Your task to perform on an android device: open app "Flipkart Online Shopping App" (install if not already installed) Image 0: 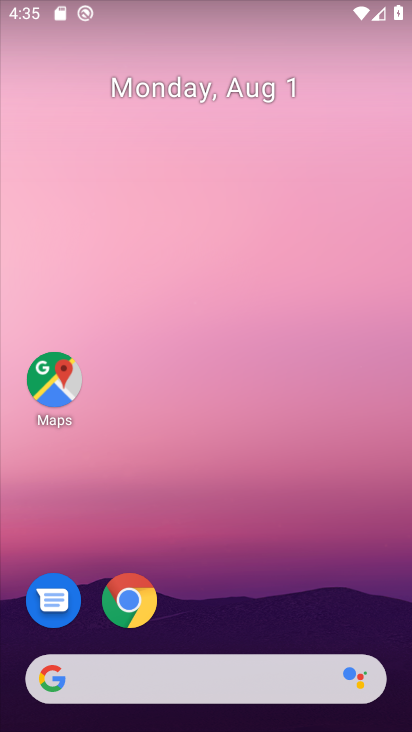
Step 0: drag from (265, 608) to (240, 69)
Your task to perform on an android device: open app "Flipkart Online Shopping App" (install if not already installed) Image 1: 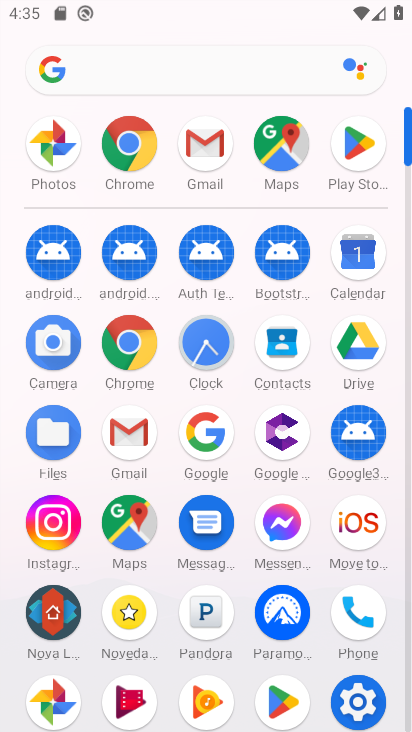
Step 1: click (372, 143)
Your task to perform on an android device: open app "Flipkart Online Shopping App" (install if not already installed) Image 2: 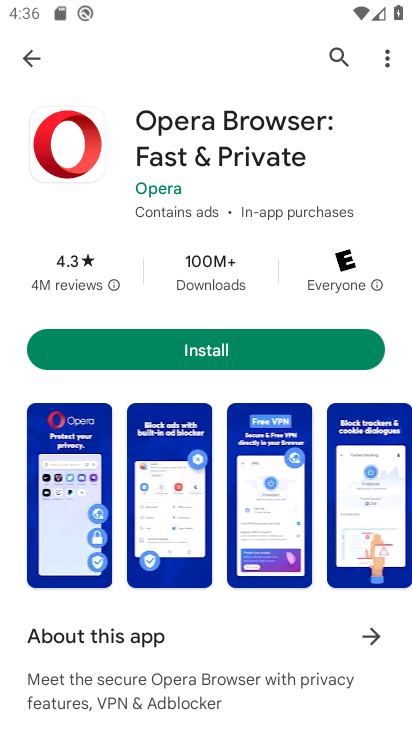
Step 2: click (330, 48)
Your task to perform on an android device: open app "Flipkart Online Shopping App" (install if not already installed) Image 3: 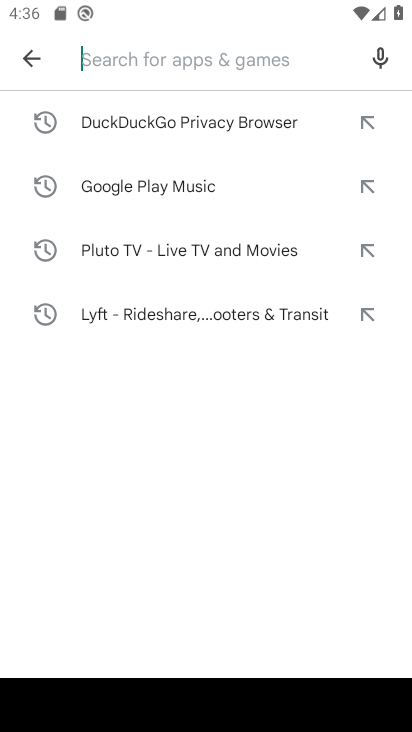
Step 3: type "Flipkart Online Shopping App"
Your task to perform on an android device: open app "Flipkart Online Shopping App" (install if not already installed) Image 4: 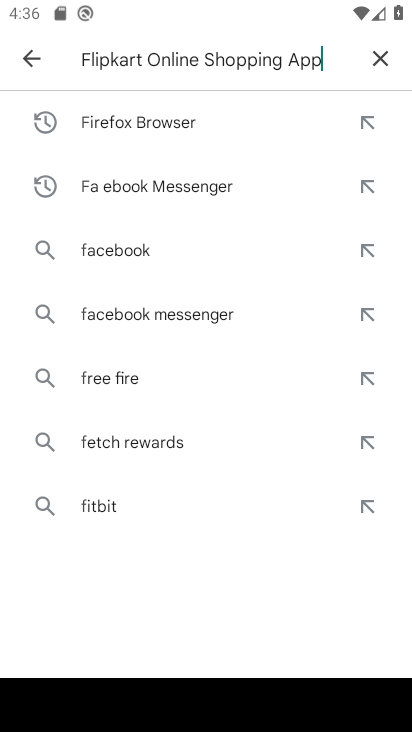
Step 4: press enter
Your task to perform on an android device: open app "Flipkart Online Shopping App" (install if not already installed) Image 5: 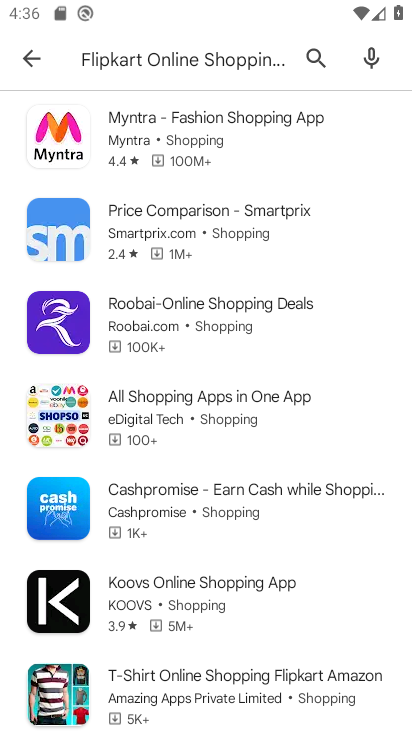
Step 5: task complete